Your task to perform on an android device: Go to sound settings Image 0: 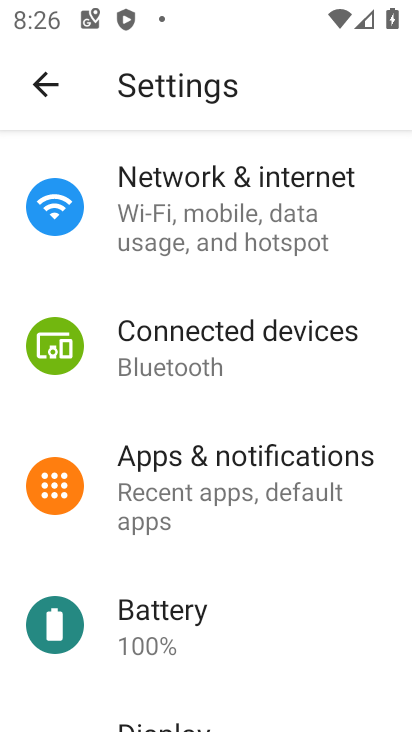
Step 0: drag from (232, 622) to (218, 73)
Your task to perform on an android device: Go to sound settings Image 1: 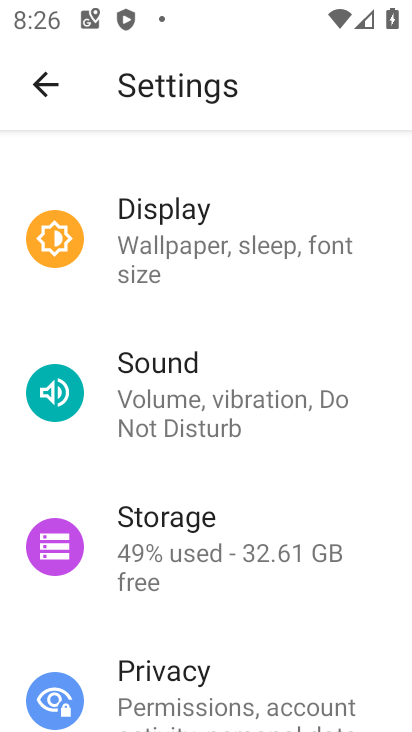
Step 1: click (228, 409)
Your task to perform on an android device: Go to sound settings Image 2: 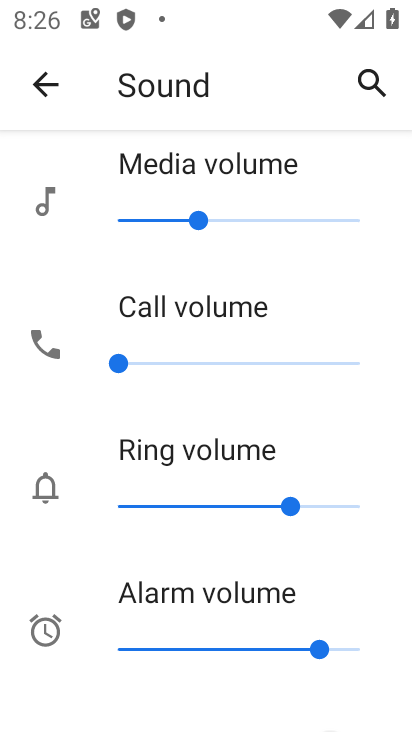
Step 2: task complete